Your task to perform on an android device: turn off notifications in google photos Image 0: 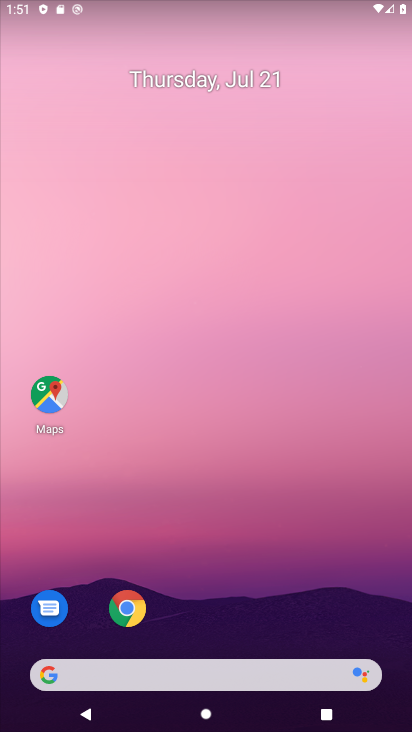
Step 0: drag from (266, 567) to (224, 118)
Your task to perform on an android device: turn off notifications in google photos Image 1: 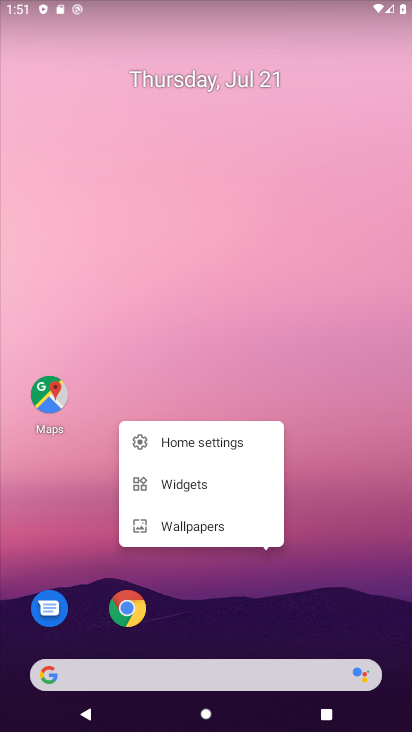
Step 1: click (224, 118)
Your task to perform on an android device: turn off notifications in google photos Image 2: 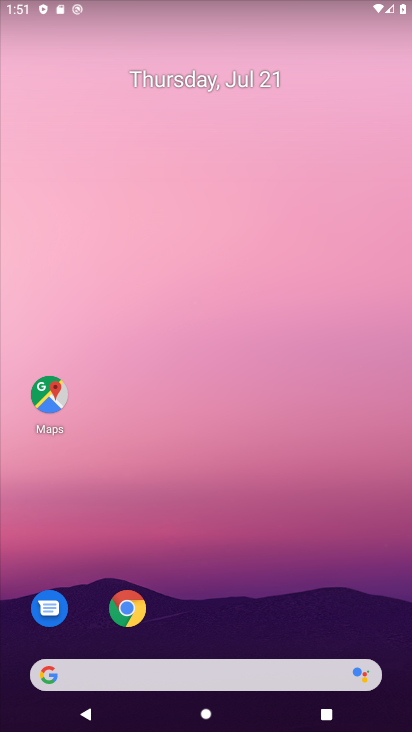
Step 2: drag from (246, 570) to (192, 164)
Your task to perform on an android device: turn off notifications in google photos Image 3: 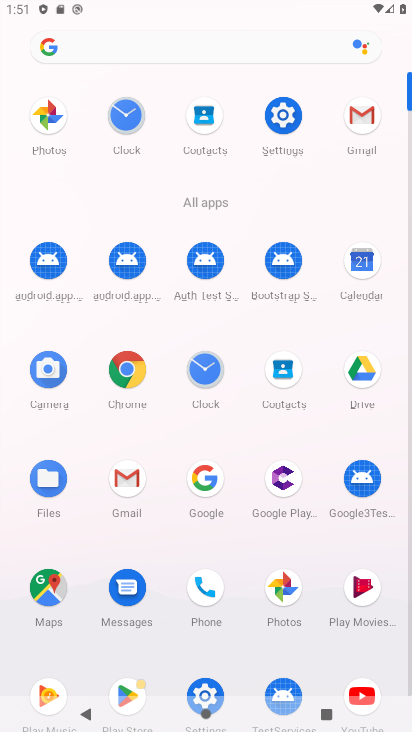
Step 3: click (39, 115)
Your task to perform on an android device: turn off notifications in google photos Image 4: 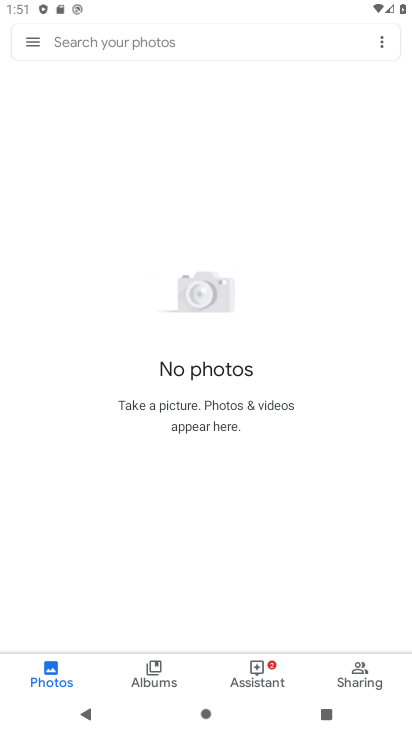
Step 4: click (27, 35)
Your task to perform on an android device: turn off notifications in google photos Image 5: 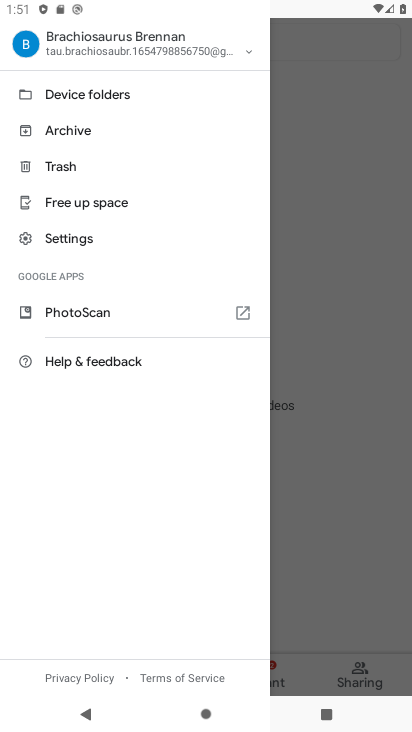
Step 5: click (61, 234)
Your task to perform on an android device: turn off notifications in google photos Image 6: 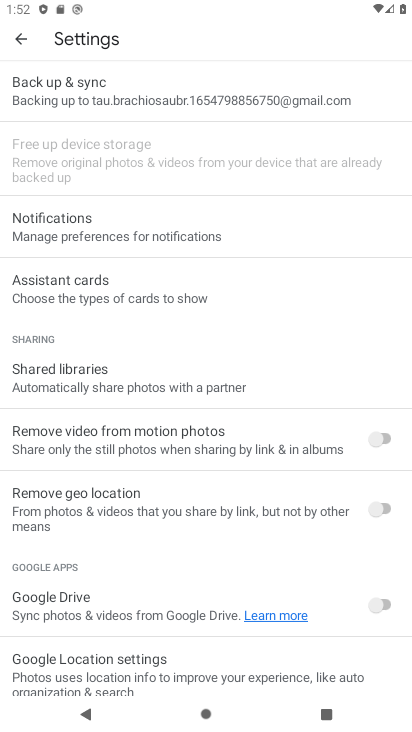
Step 6: click (37, 217)
Your task to perform on an android device: turn off notifications in google photos Image 7: 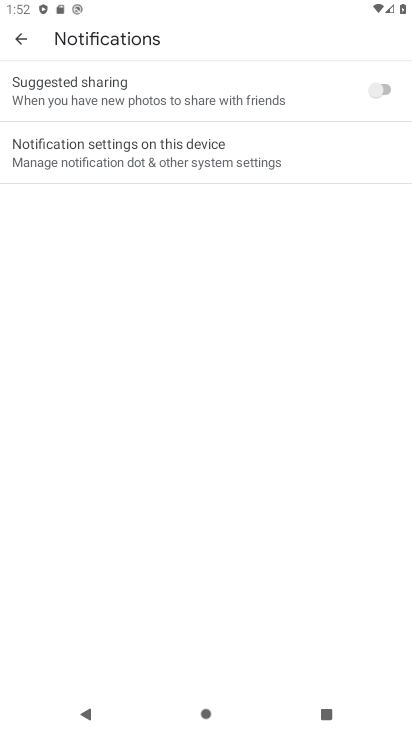
Step 7: click (133, 145)
Your task to perform on an android device: turn off notifications in google photos Image 8: 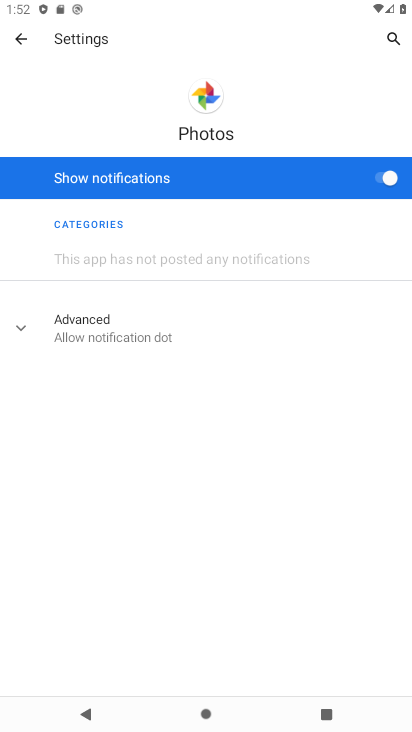
Step 8: click (390, 183)
Your task to perform on an android device: turn off notifications in google photos Image 9: 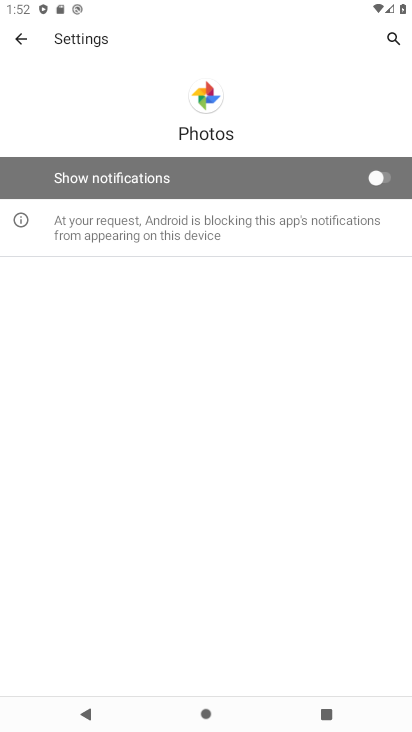
Step 9: task complete